Your task to perform on an android device: Go to location settings Image 0: 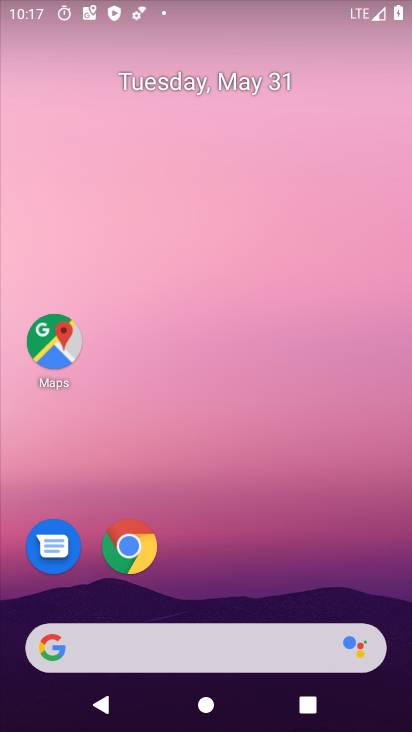
Step 0: drag from (242, 533) to (267, 118)
Your task to perform on an android device: Go to location settings Image 1: 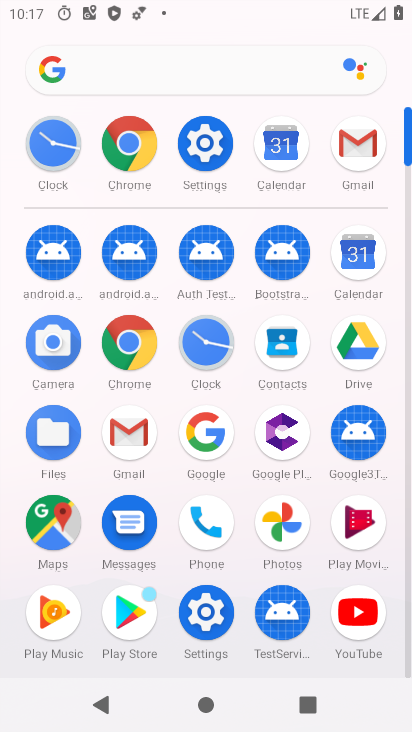
Step 1: click (207, 148)
Your task to perform on an android device: Go to location settings Image 2: 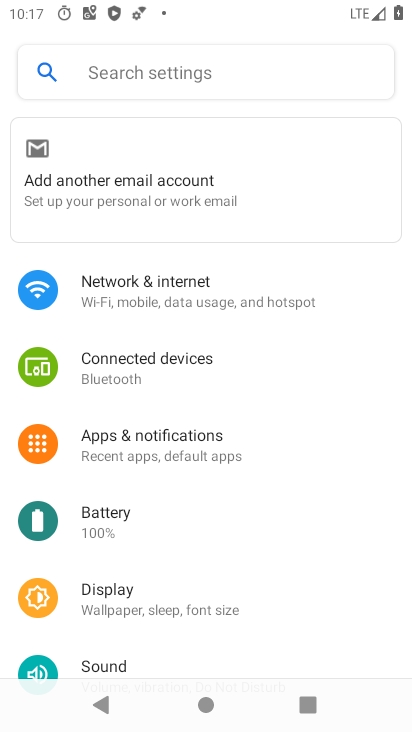
Step 2: drag from (181, 567) to (251, 154)
Your task to perform on an android device: Go to location settings Image 3: 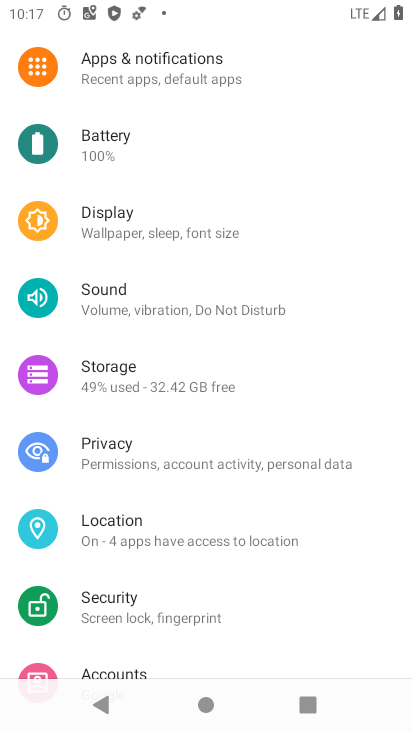
Step 3: click (58, 519)
Your task to perform on an android device: Go to location settings Image 4: 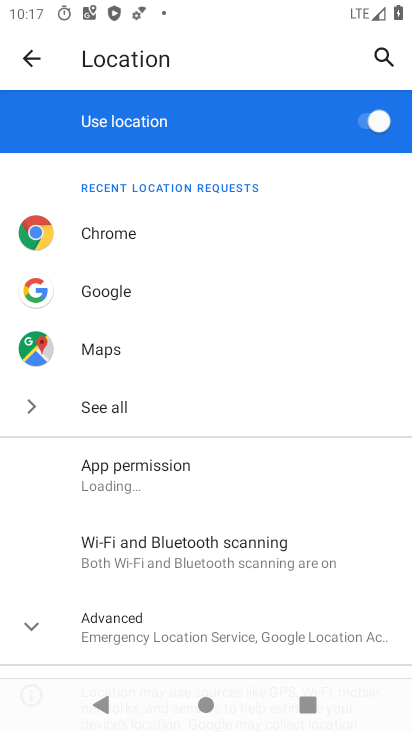
Step 4: task complete